Your task to perform on an android device: Open Youtube and go to the subscriptions tab Image 0: 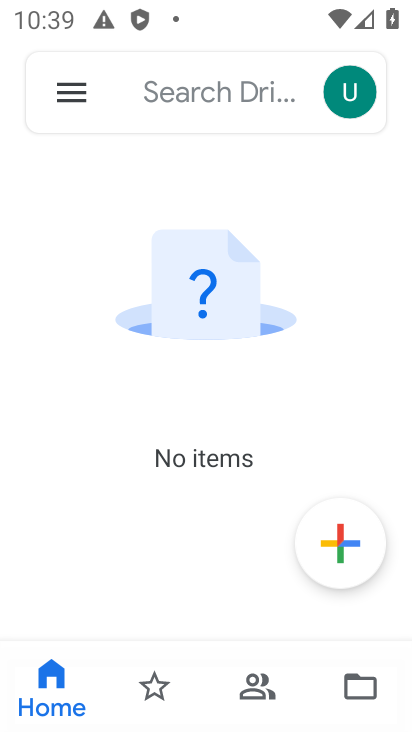
Step 0: task complete